Your task to perform on an android device: Open maps Image 0: 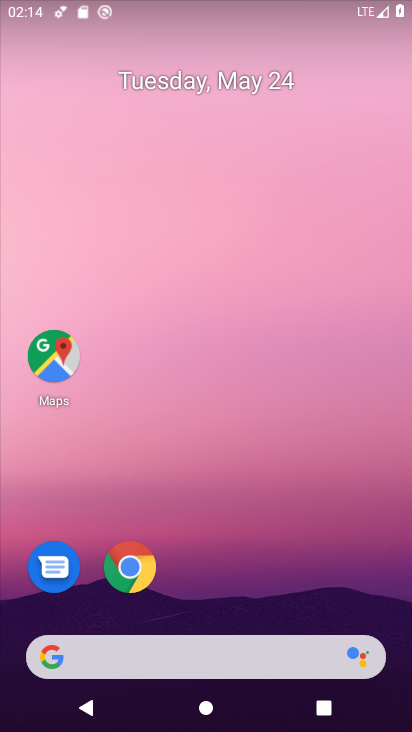
Step 0: drag from (190, 597) to (200, 160)
Your task to perform on an android device: Open maps Image 1: 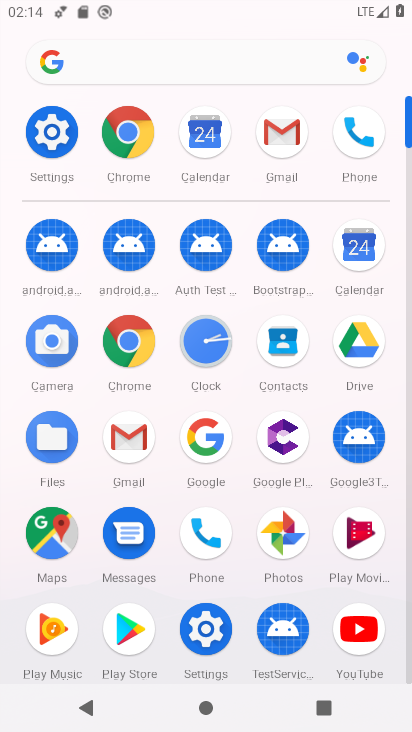
Step 1: click (44, 547)
Your task to perform on an android device: Open maps Image 2: 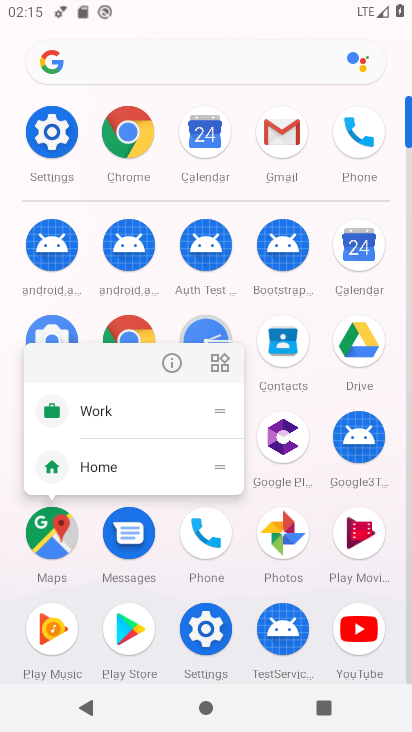
Step 2: click (49, 551)
Your task to perform on an android device: Open maps Image 3: 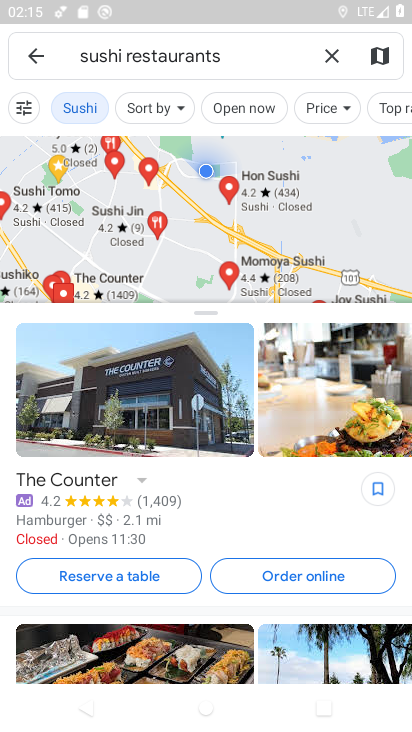
Step 3: task complete